Your task to perform on an android device: Open the web browser Image 0: 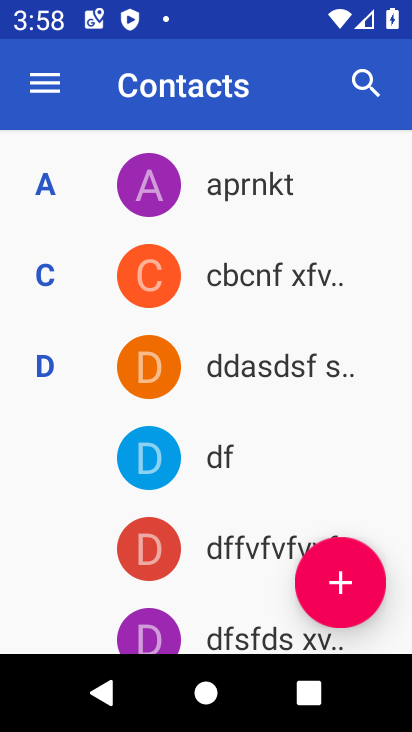
Step 0: press home button
Your task to perform on an android device: Open the web browser Image 1: 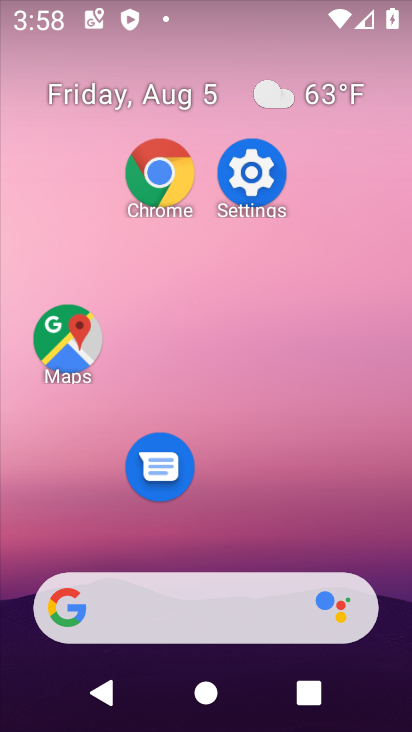
Step 1: click (154, 166)
Your task to perform on an android device: Open the web browser Image 2: 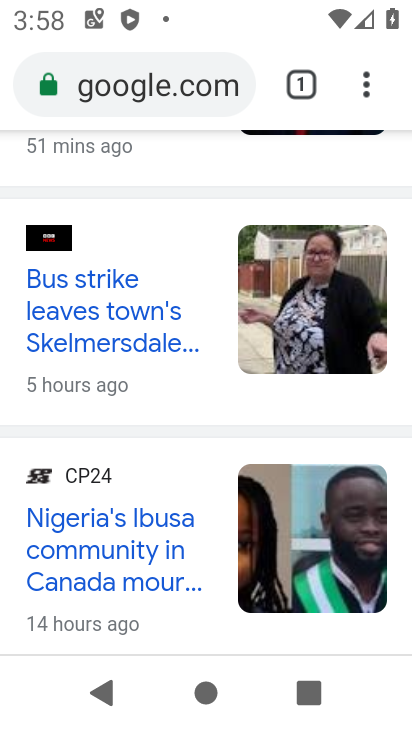
Step 2: click (129, 90)
Your task to perform on an android device: Open the web browser Image 3: 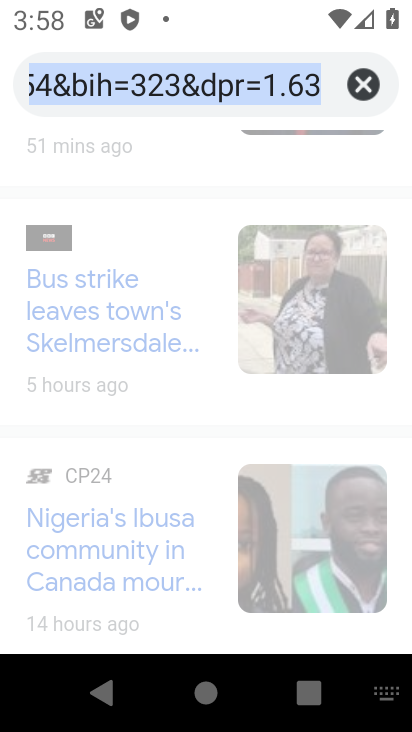
Step 3: click (371, 83)
Your task to perform on an android device: Open the web browser Image 4: 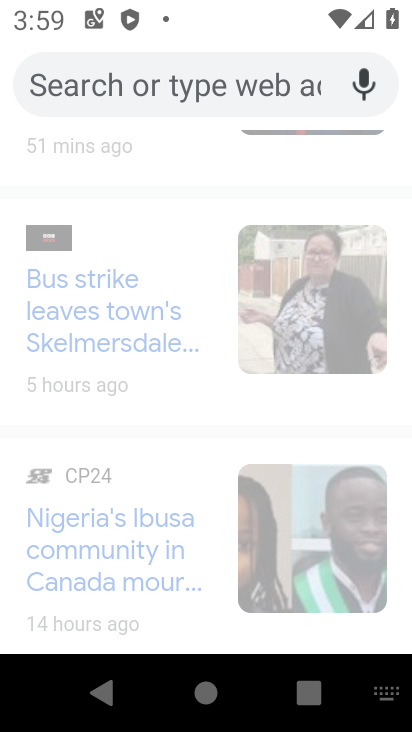
Step 4: type "web browser"
Your task to perform on an android device: Open the web browser Image 5: 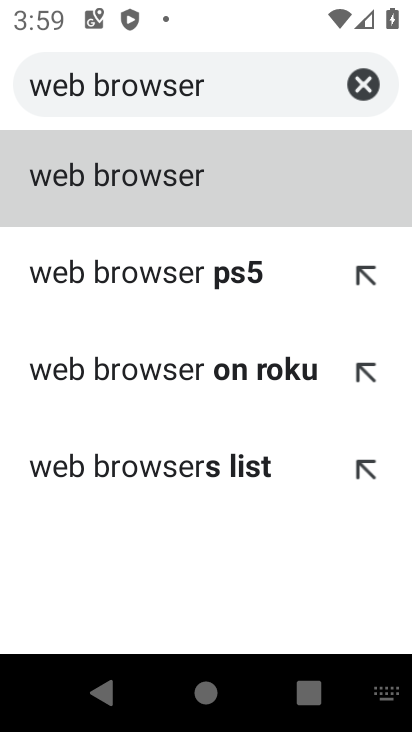
Step 5: click (111, 166)
Your task to perform on an android device: Open the web browser Image 6: 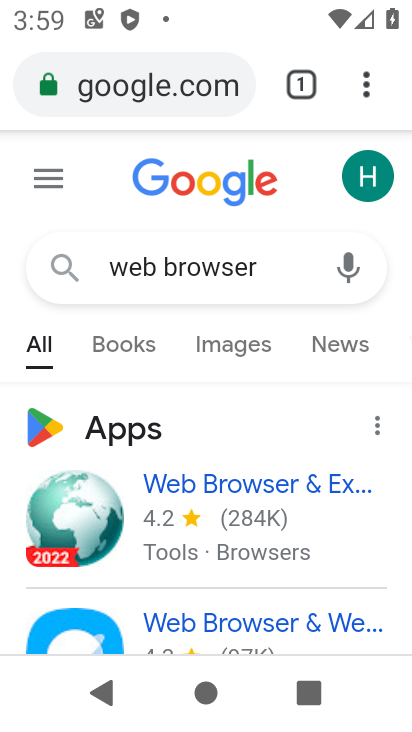
Step 6: click (162, 470)
Your task to perform on an android device: Open the web browser Image 7: 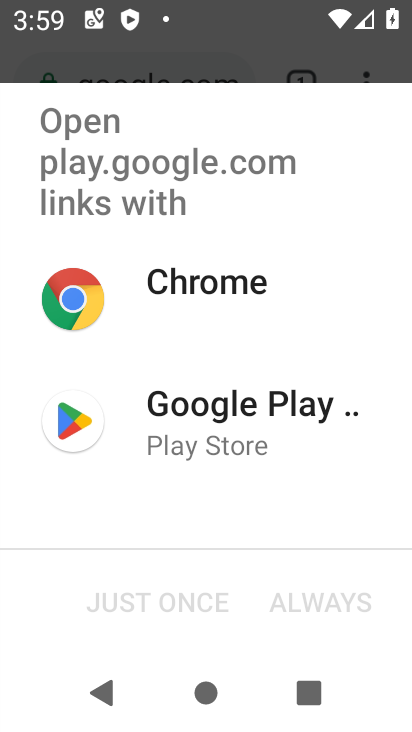
Step 7: task complete